Your task to perform on an android device: turn on data saver in the chrome app Image 0: 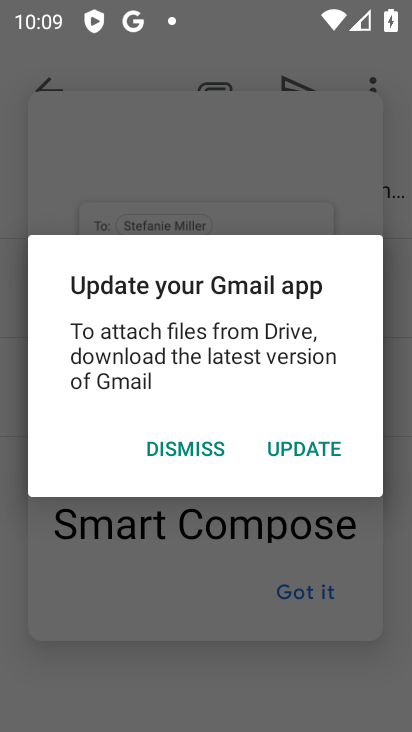
Step 0: press home button
Your task to perform on an android device: turn on data saver in the chrome app Image 1: 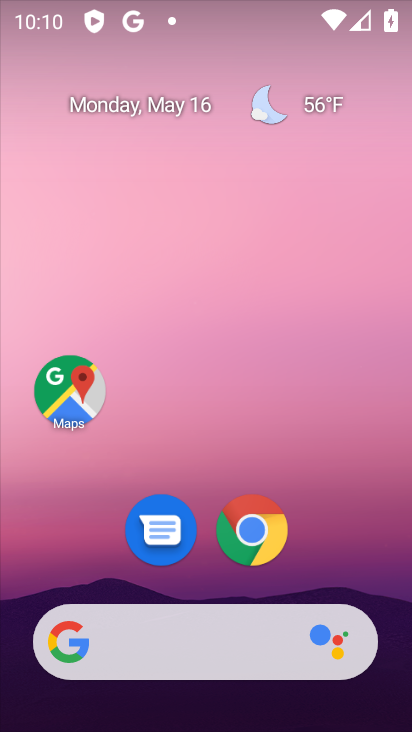
Step 1: drag from (378, 537) to (371, 127)
Your task to perform on an android device: turn on data saver in the chrome app Image 2: 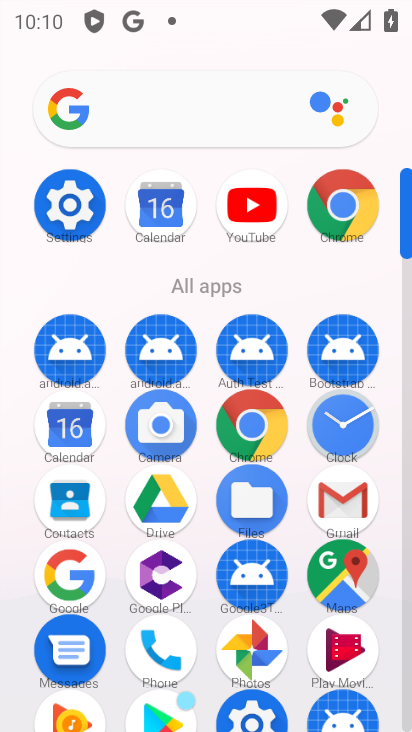
Step 2: click (353, 227)
Your task to perform on an android device: turn on data saver in the chrome app Image 3: 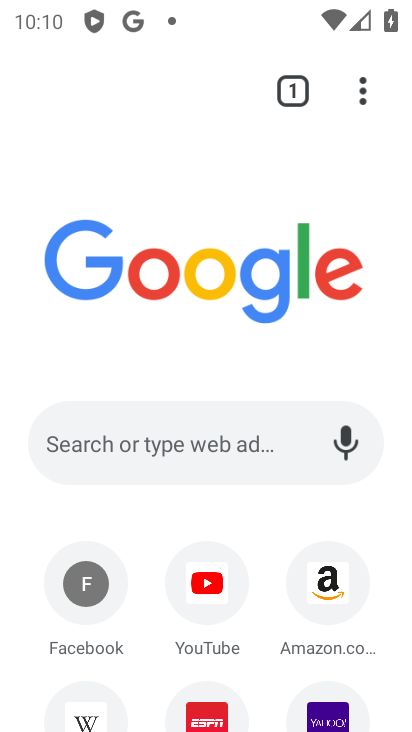
Step 3: click (362, 99)
Your task to perform on an android device: turn on data saver in the chrome app Image 4: 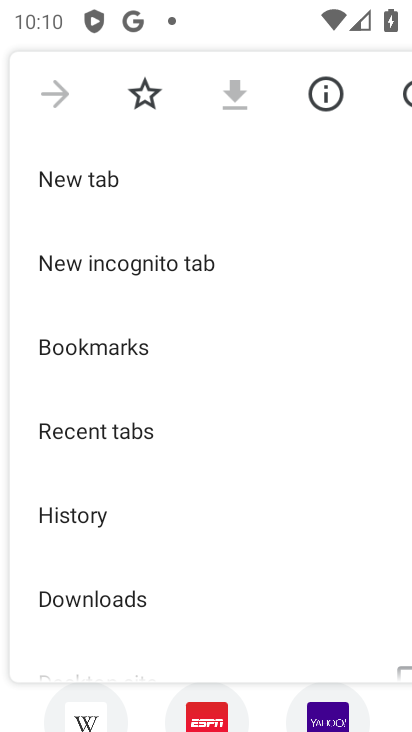
Step 4: drag from (319, 554) to (351, 335)
Your task to perform on an android device: turn on data saver in the chrome app Image 5: 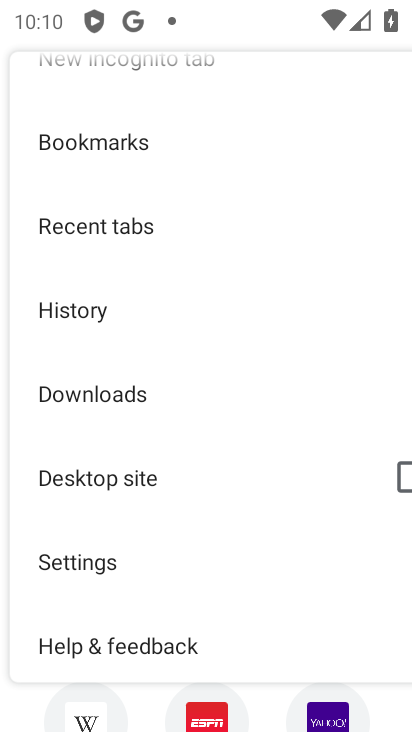
Step 5: drag from (314, 457) to (320, 387)
Your task to perform on an android device: turn on data saver in the chrome app Image 6: 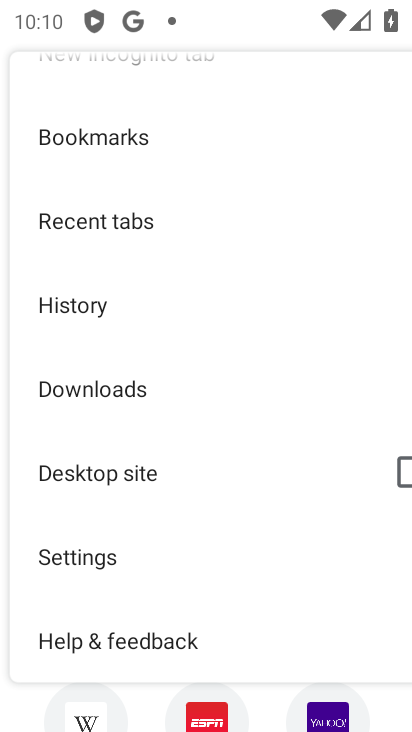
Step 6: drag from (299, 560) to (298, 426)
Your task to perform on an android device: turn on data saver in the chrome app Image 7: 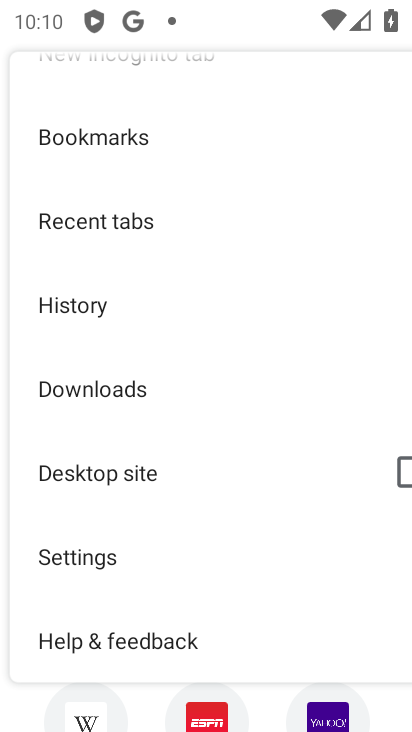
Step 7: click (95, 565)
Your task to perform on an android device: turn on data saver in the chrome app Image 8: 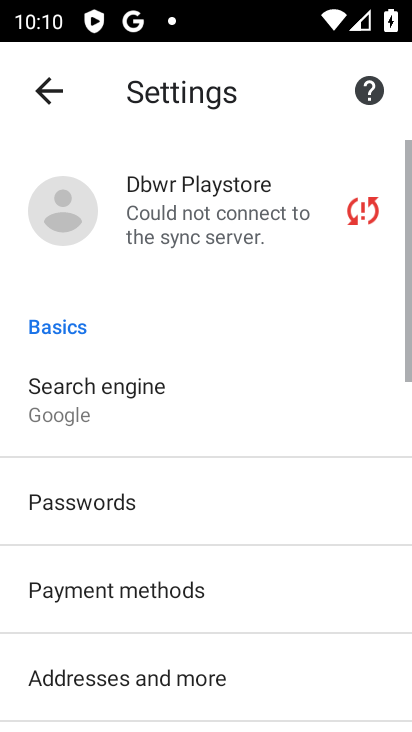
Step 8: drag from (273, 554) to (309, 376)
Your task to perform on an android device: turn on data saver in the chrome app Image 9: 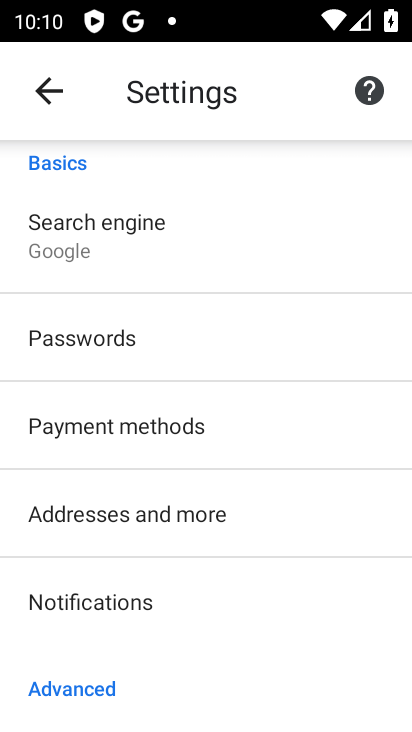
Step 9: drag from (289, 592) to (308, 409)
Your task to perform on an android device: turn on data saver in the chrome app Image 10: 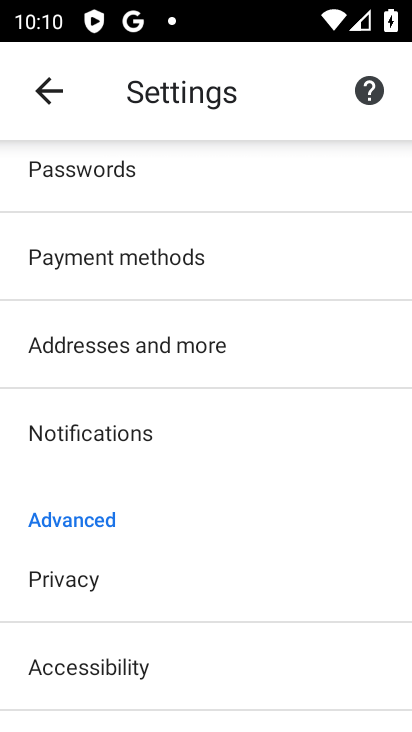
Step 10: drag from (279, 614) to (301, 474)
Your task to perform on an android device: turn on data saver in the chrome app Image 11: 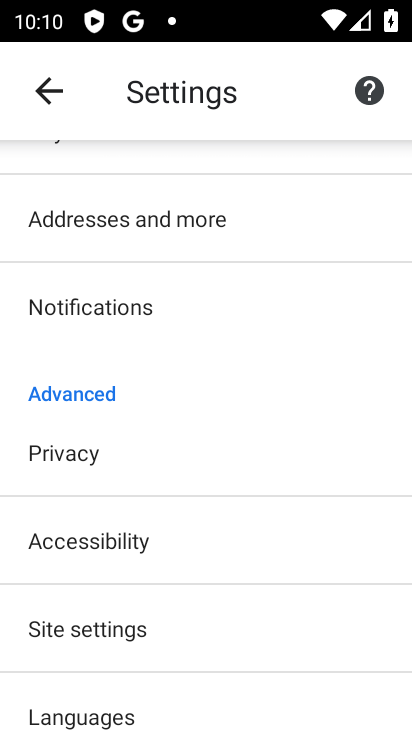
Step 11: drag from (281, 625) to (297, 478)
Your task to perform on an android device: turn on data saver in the chrome app Image 12: 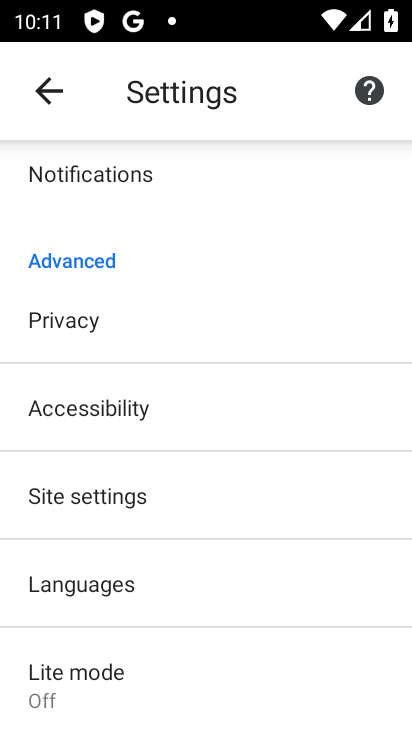
Step 12: drag from (272, 638) to (291, 498)
Your task to perform on an android device: turn on data saver in the chrome app Image 13: 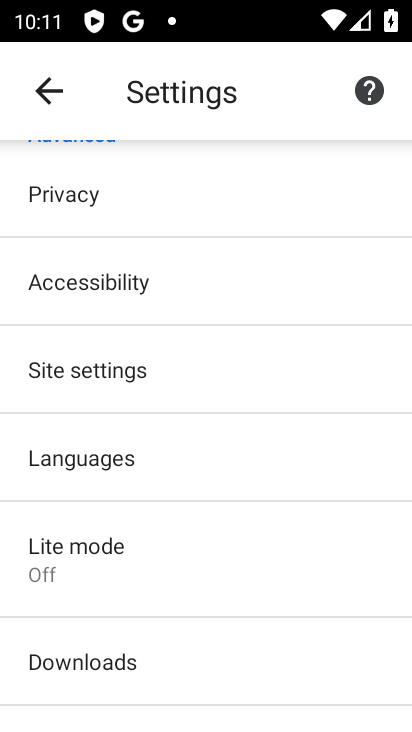
Step 13: click (282, 567)
Your task to perform on an android device: turn on data saver in the chrome app Image 14: 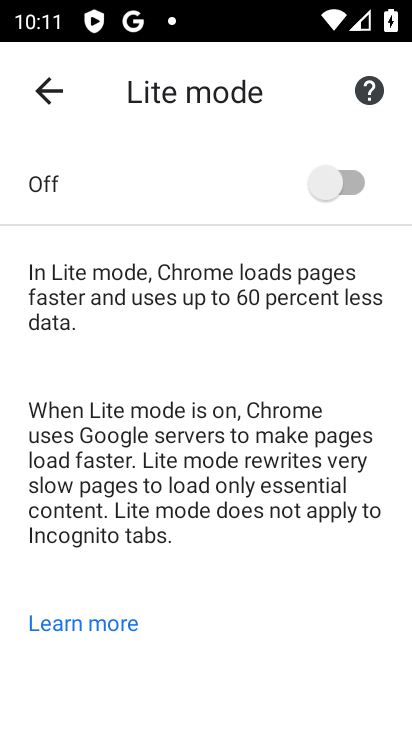
Step 14: click (326, 177)
Your task to perform on an android device: turn on data saver in the chrome app Image 15: 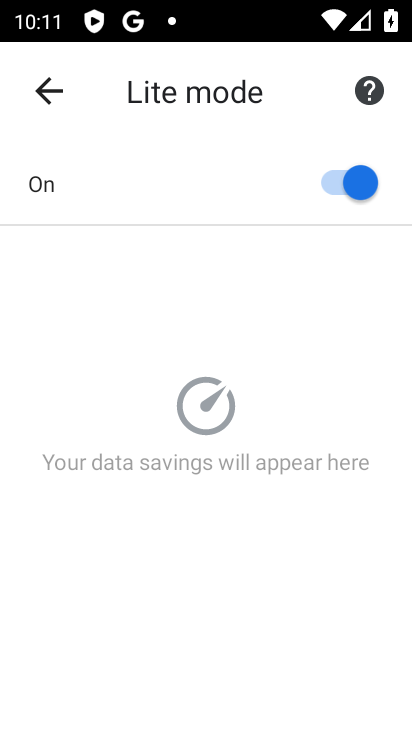
Step 15: task complete